Your task to perform on an android device: Open calendar and show me the first week of next month Image 0: 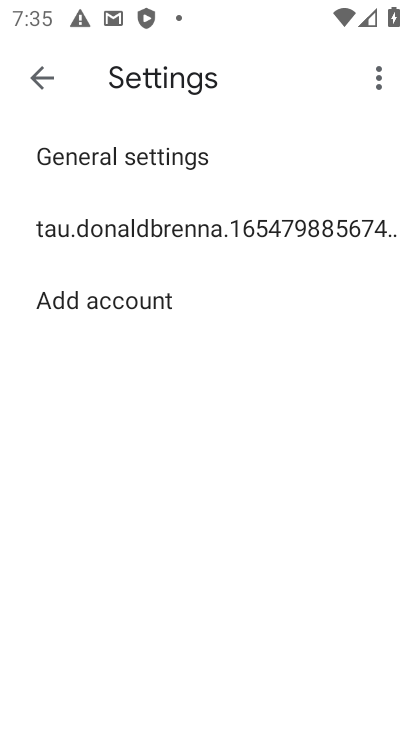
Step 0: press home button
Your task to perform on an android device: Open calendar and show me the first week of next month Image 1: 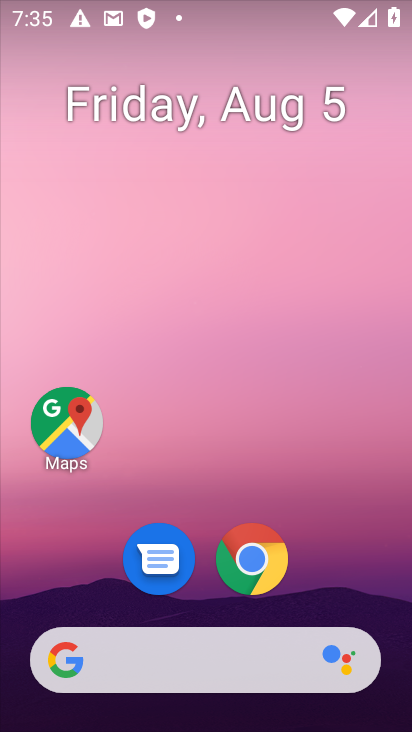
Step 1: drag from (196, 607) to (176, 35)
Your task to perform on an android device: Open calendar and show me the first week of next month Image 2: 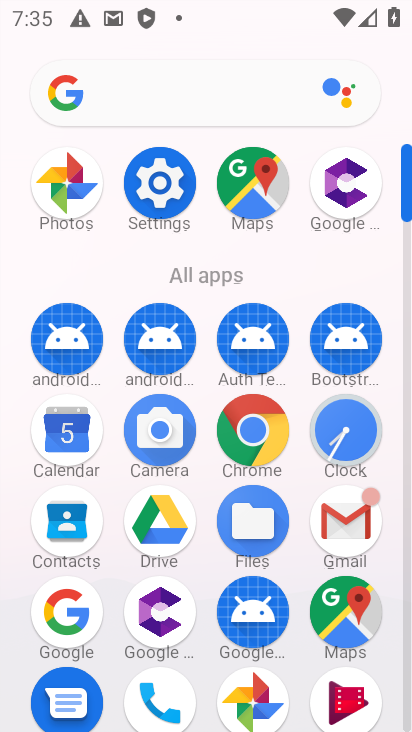
Step 2: click (61, 435)
Your task to perform on an android device: Open calendar and show me the first week of next month Image 3: 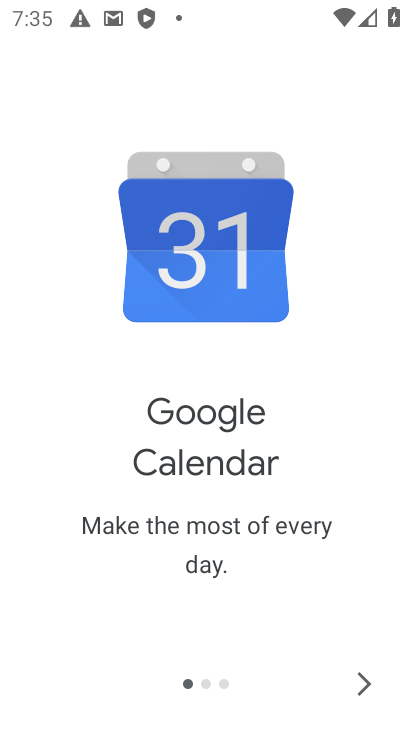
Step 3: click (366, 689)
Your task to perform on an android device: Open calendar and show me the first week of next month Image 4: 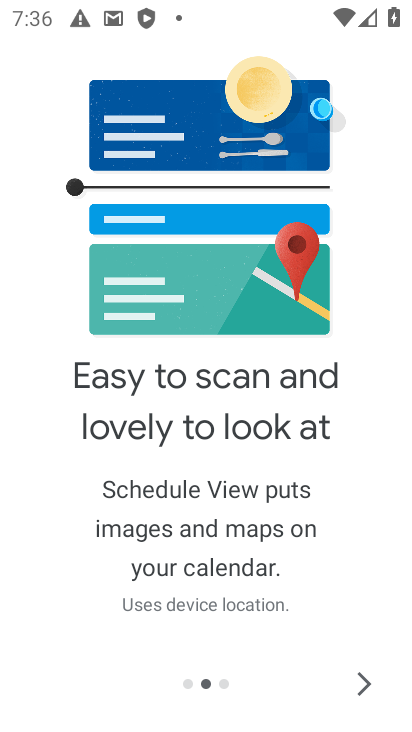
Step 4: click (363, 693)
Your task to perform on an android device: Open calendar and show me the first week of next month Image 5: 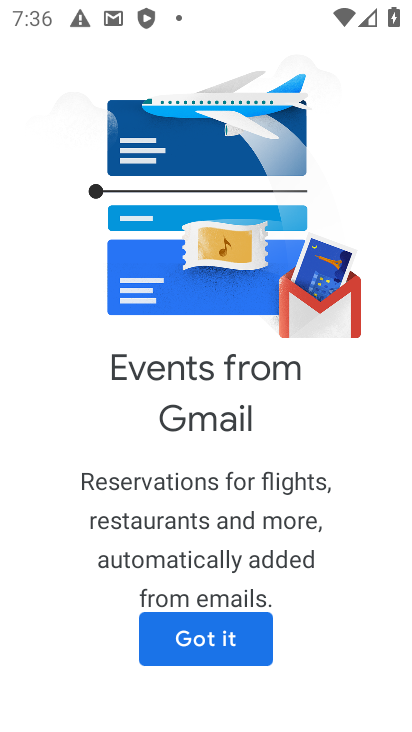
Step 5: click (189, 633)
Your task to perform on an android device: Open calendar and show me the first week of next month Image 6: 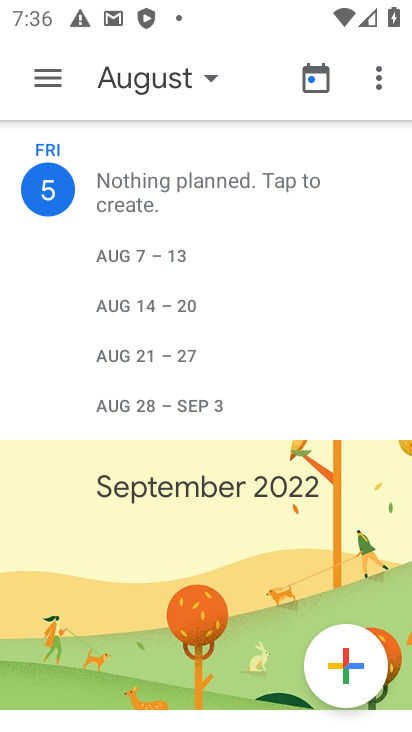
Step 6: click (50, 82)
Your task to perform on an android device: Open calendar and show me the first week of next month Image 7: 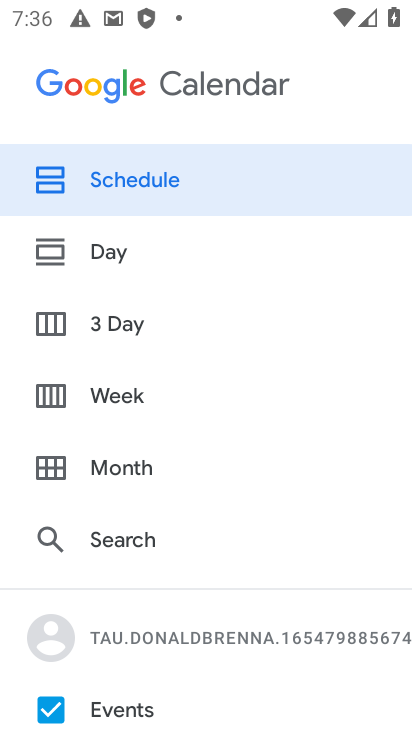
Step 7: click (106, 402)
Your task to perform on an android device: Open calendar and show me the first week of next month Image 8: 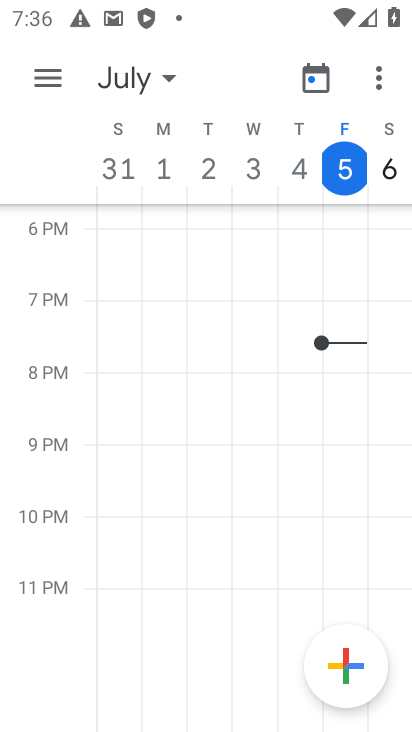
Step 8: click (129, 71)
Your task to perform on an android device: Open calendar and show me the first week of next month Image 9: 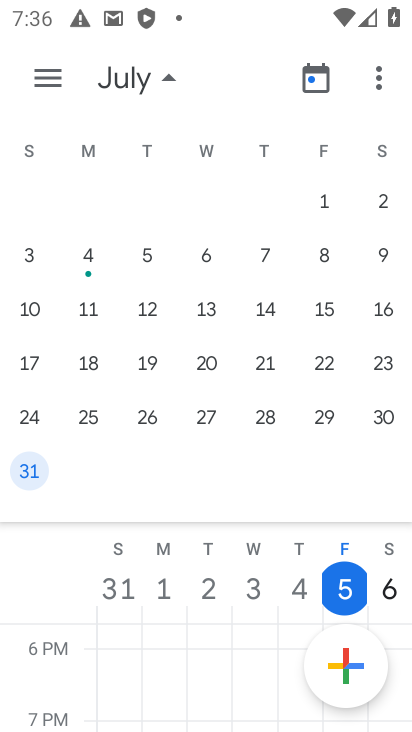
Step 9: drag from (325, 268) to (24, 249)
Your task to perform on an android device: Open calendar and show me the first week of next month Image 10: 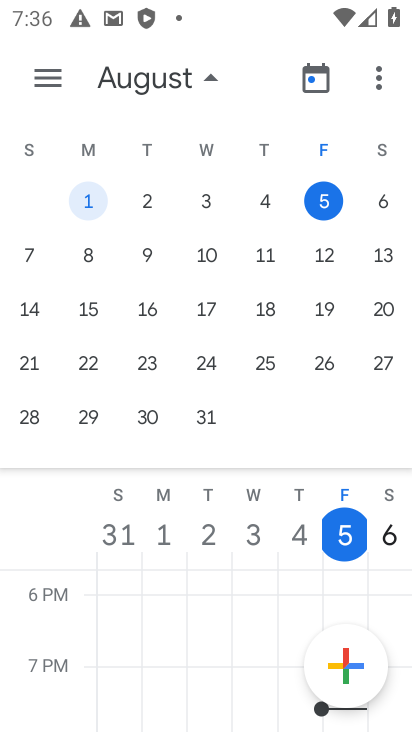
Step 10: drag from (341, 261) to (16, 292)
Your task to perform on an android device: Open calendar and show me the first week of next month Image 11: 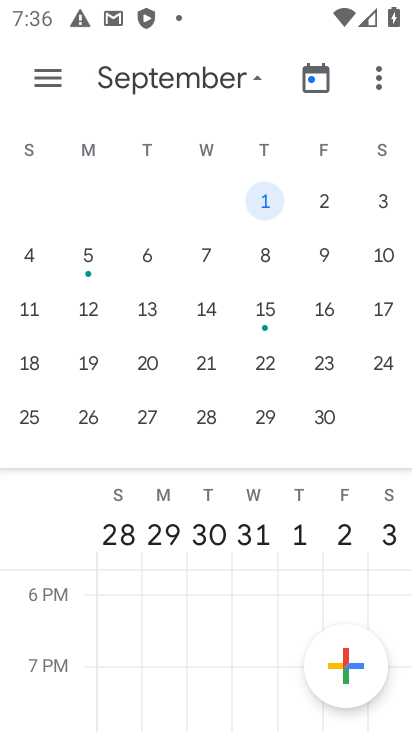
Step 11: click (81, 253)
Your task to perform on an android device: Open calendar and show me the first week of next month Image 12: 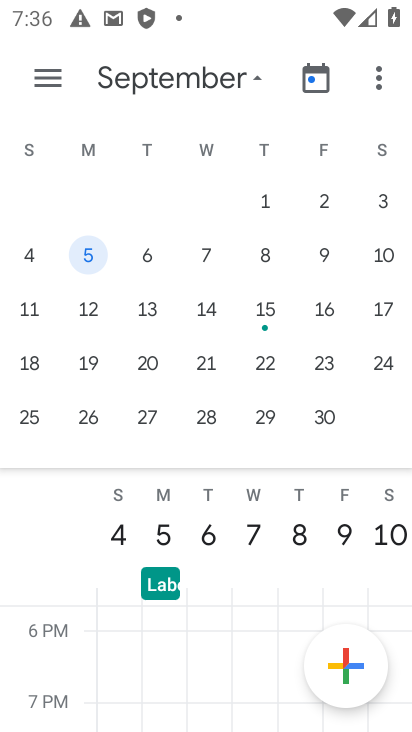
Step 12: task complete